Your task to perform on an android device: Open calendar and show me the fourth week of next month Image 0: 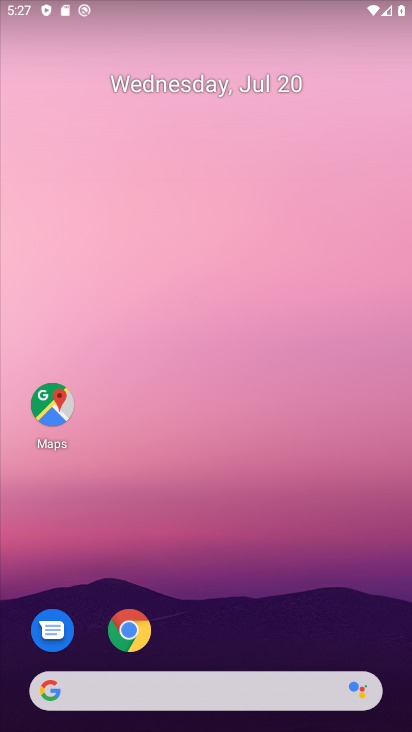
Step 0: drag from (326, 670) to (387, 8)
Your task to perform on an android device: Open calendar and show me the fourth week of next month Image 1: 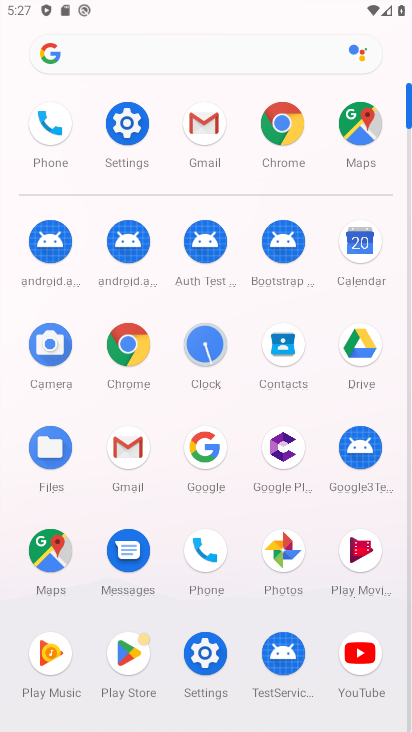
Step 1: click (367, 235)
Your task to perform on an android device: Open calendar and show me the fourth week of next month Image 2: 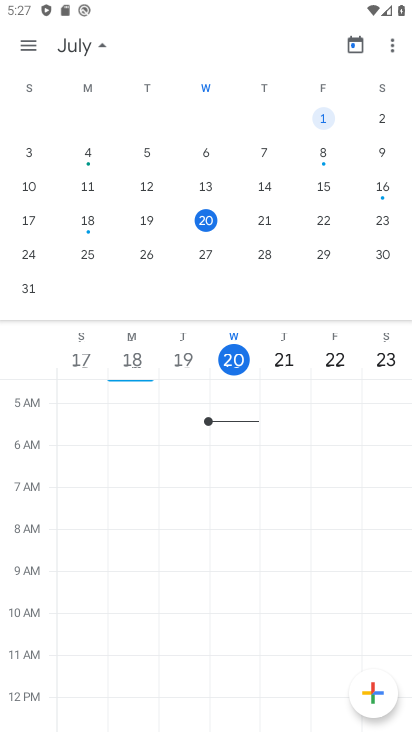
Step 2: drag from (346, 209) to (101, 170)
Your task to perform on an android device: Open calendar and show me the fourth week of next month Image 3: 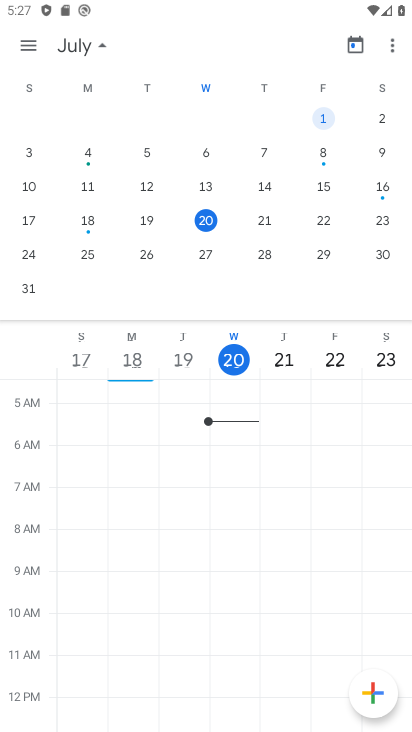
Step 3: drag from (374, 210) to (11, 169)
Your task to perform on an android device: Open calendar and show me the fourth week of next month Image 4: 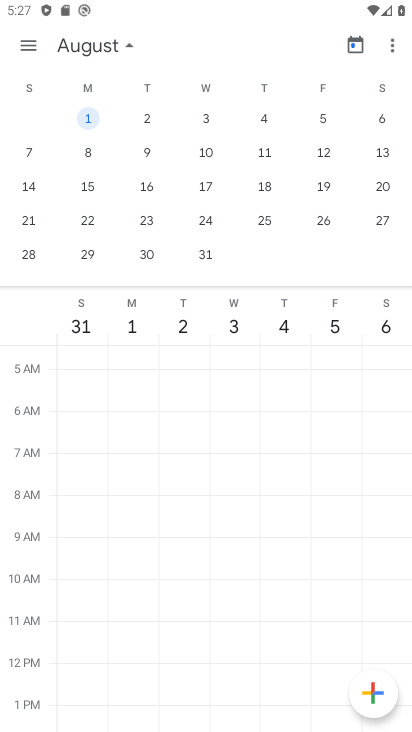
Step 4: click (205, 212)
Your task to perform on an android device: Open calendar and show me the fourth week of next month Image 5: 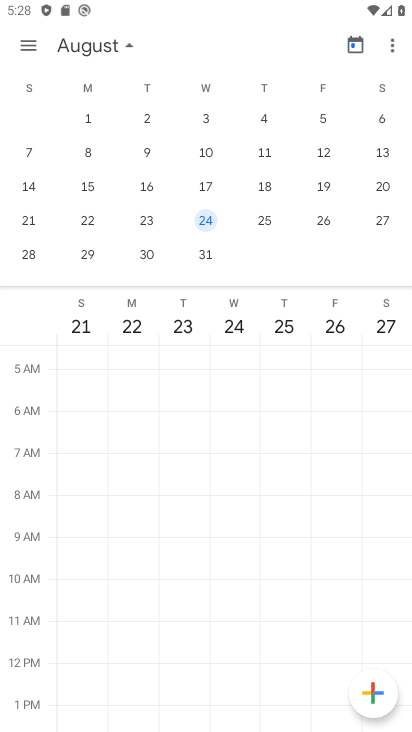
Step 5: task complete